Your task to perform on an android device: Open Chrome and go to settings Image 0: 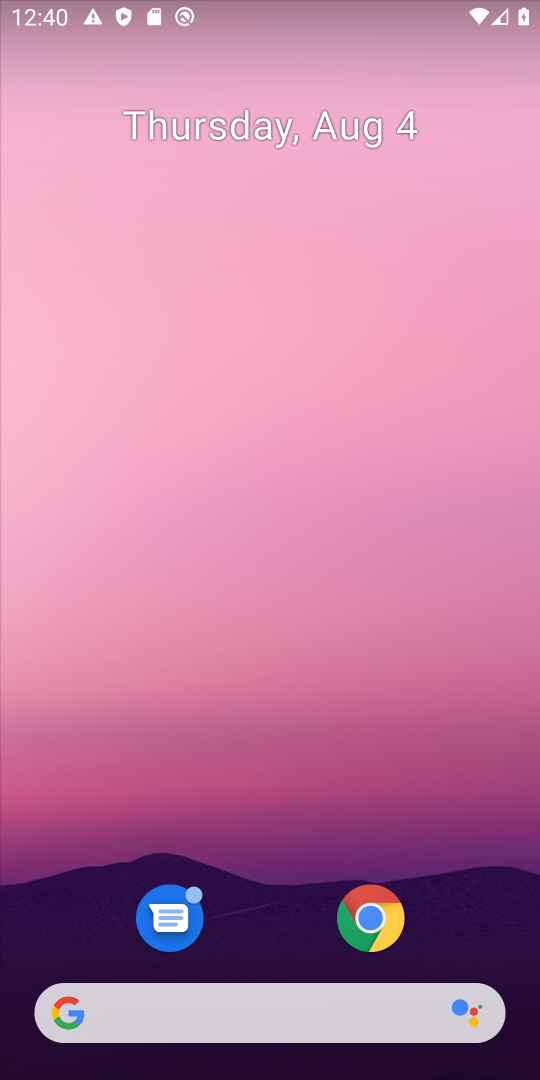
Step 0: click (364, 907)
Your task to perform on an android device: Open Chrome and go to settings Image 1: 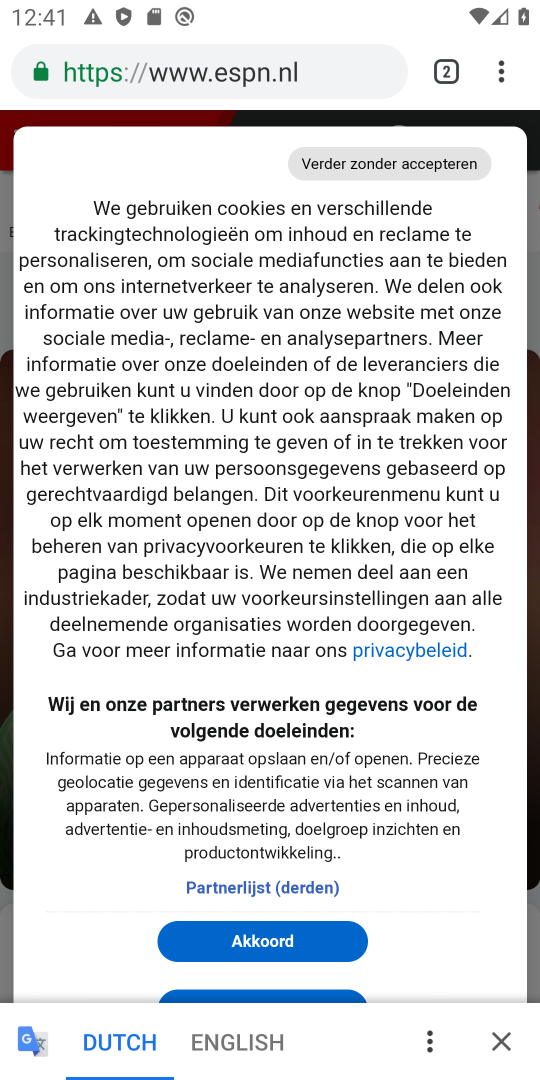
Step 1: click (497, 64)
Your task to perform on an android device: Open Chrome and go to settings Image 2: 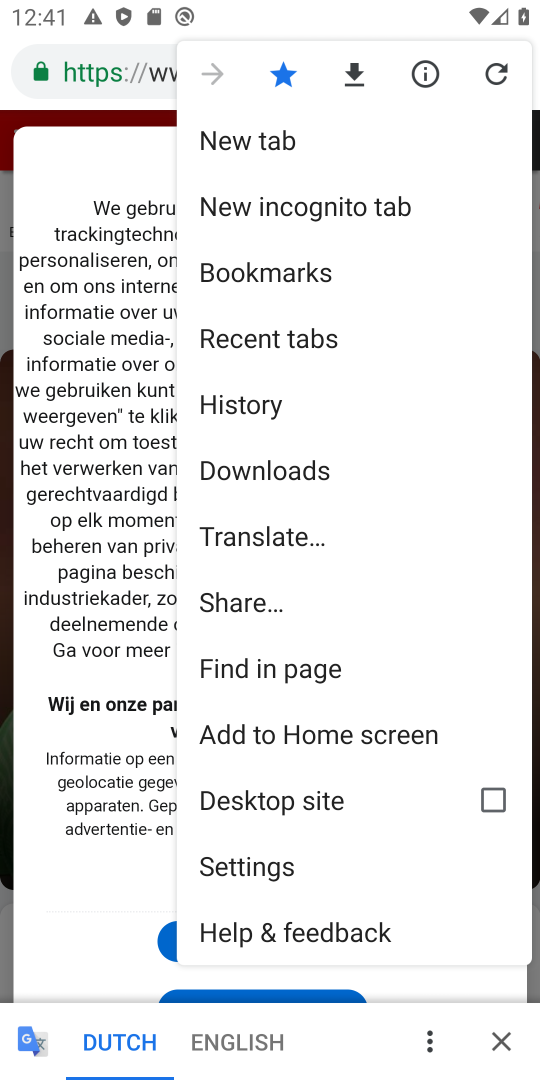
Step 2: click (348, 881)
Your task to perform on an android device: Open Chrome and go to settings Image 3: 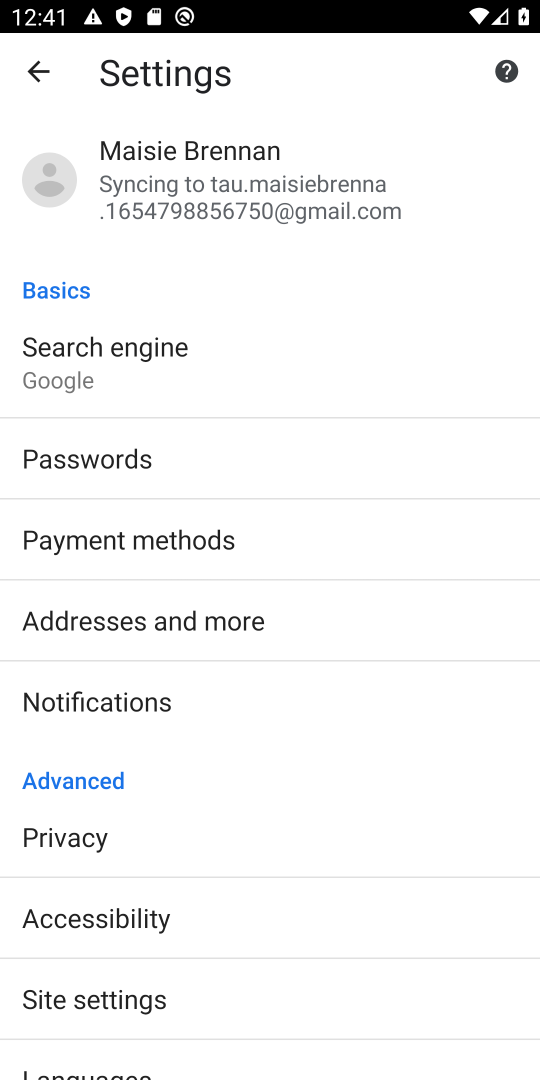
Step 3: task complete